Your task to perform on an android device: Open my contact list Image 0: 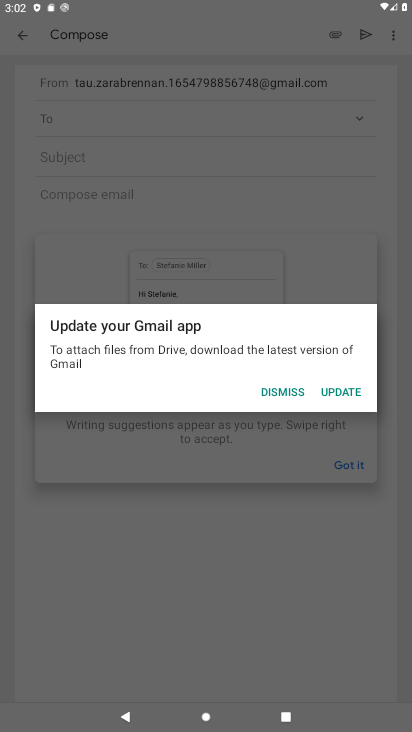
Step 0: press home button
Your task to perform on an android device: Open my contact list Image 1: 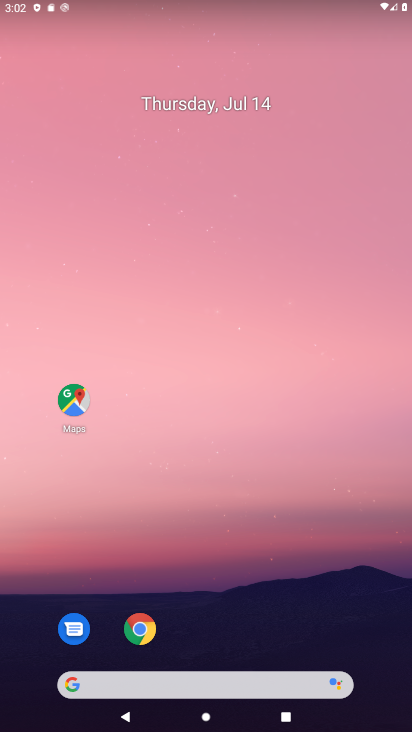
Step 1: drag from (184, 643) to (221, 327)
Your task to perform on an android device: Open my contact list Image 2: 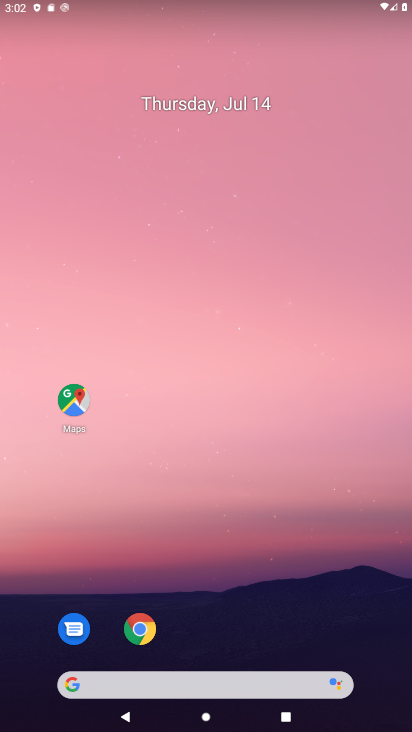
Step 2: drag from (224, 650) to (245, 38)
Your task to perform on an android device: Open my contact list Image 3: 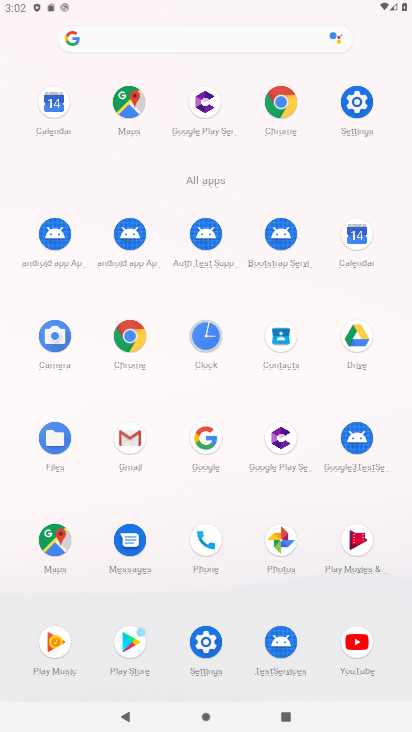
Step 3: click (281, 333)
Your task to perform on an android device: Open my contact list Image 4: 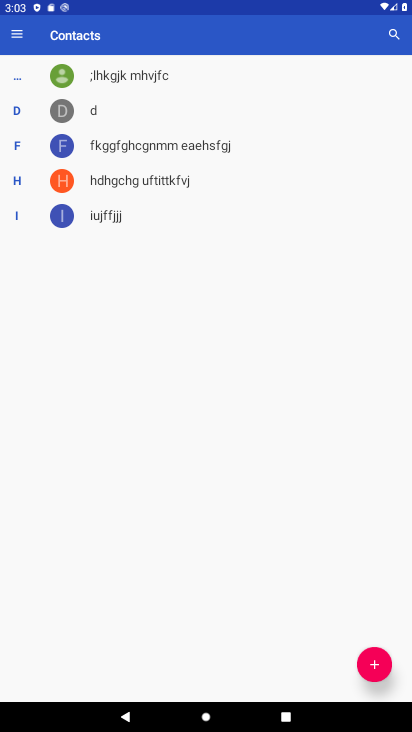
Step 4: task complete